Your task to perform on an android device: Open calendar and show me the second week of next month Image 0: 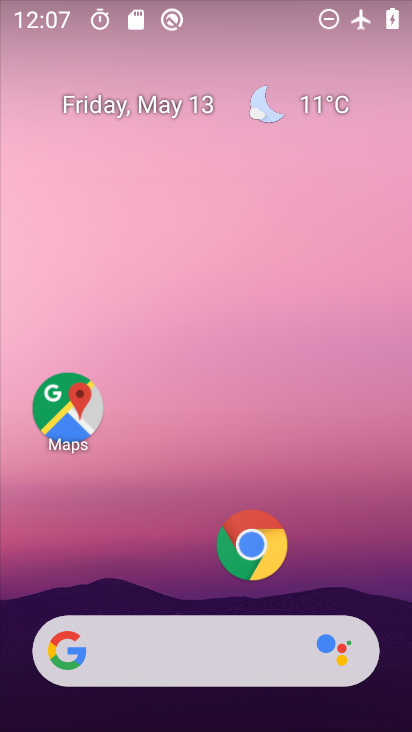
Step 0: drag from (189, 583) to (153, 28)
Your task to perform on an android device: Open calendar and show me the second week of next month Image 1: 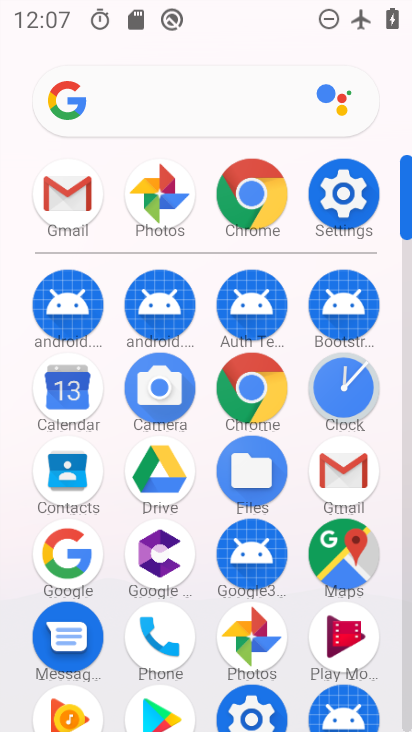
Step 1: click (65, 396)
Your task to perform on an android device: Open calendar and show me the second week of next month Image 2: 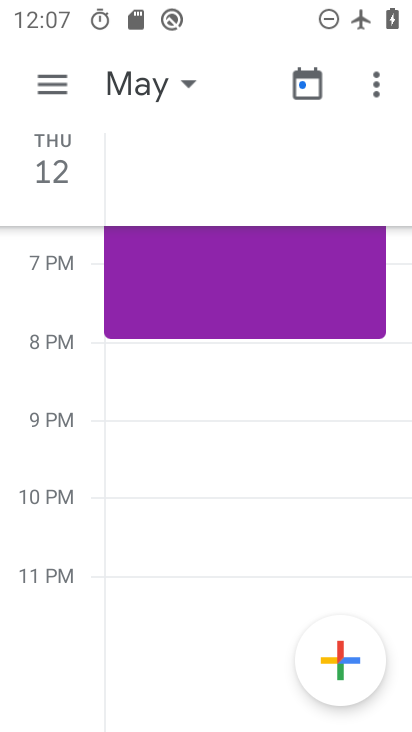
Step 2: click (180, 75)
Your task to perform on an android device: Open calendar and show me the second week of next month Image 3: 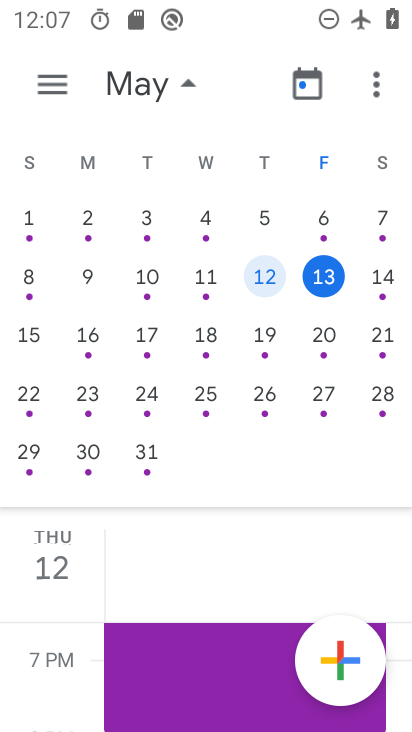
Step 3: drag from (65, 289) to (0, 289)
Your task to perform on an android device: Open calendar and show me the second week of next month Image 4: 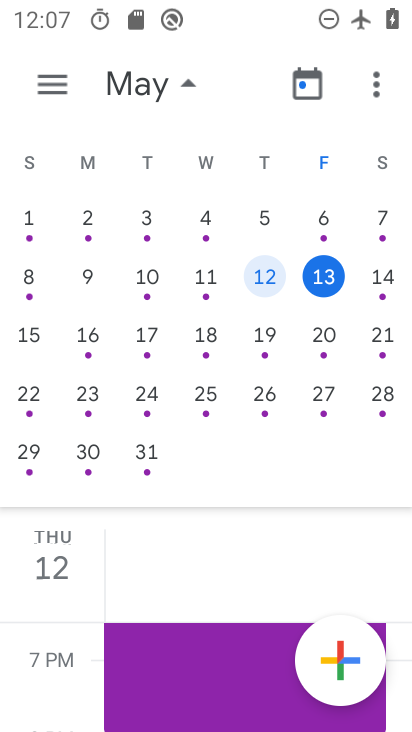
Step 4: drag from (376, 321) to (40, 318)
Your task to perform on an android device: Open calendar and show me the second week of next month Image 5: 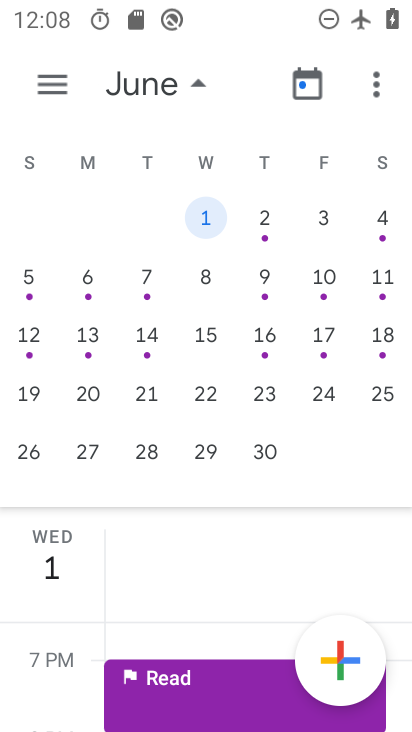
Step 5: click (28, 283)
Your task to perform on an android device: Open calendar and show me the second week of next month Image 6: 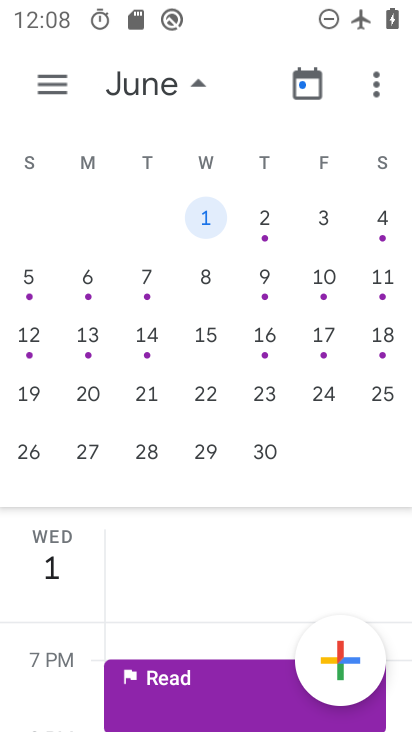
Step 6: click (28, 286)
Your task to perform on an android device: Open calendar and show me the second week of next month Image 7: 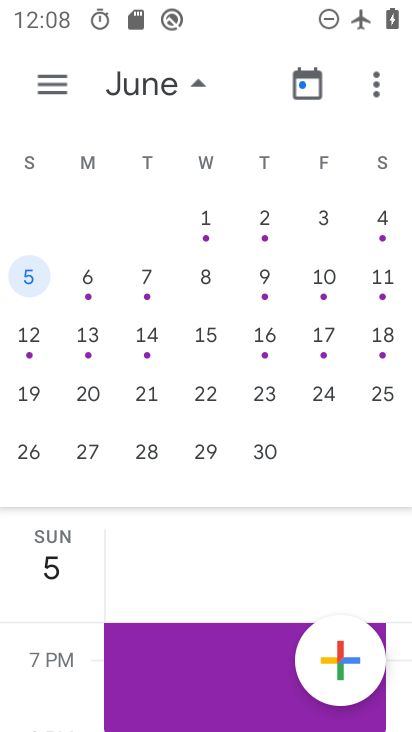
Step 7: click (190, 77)
Your task to perform on an android device: Open calendar and show me the second week of next month Image 8: 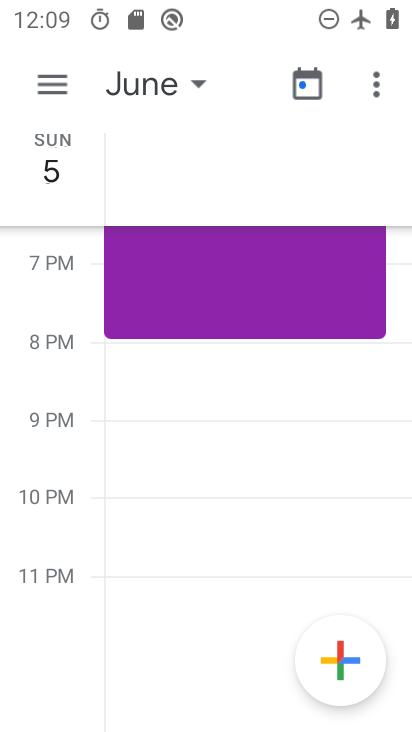
Step 8: drag from (82, 294) to (110, 731)
Your task to perform on an android device: Open calendar and show me the second week of next month Image 9: 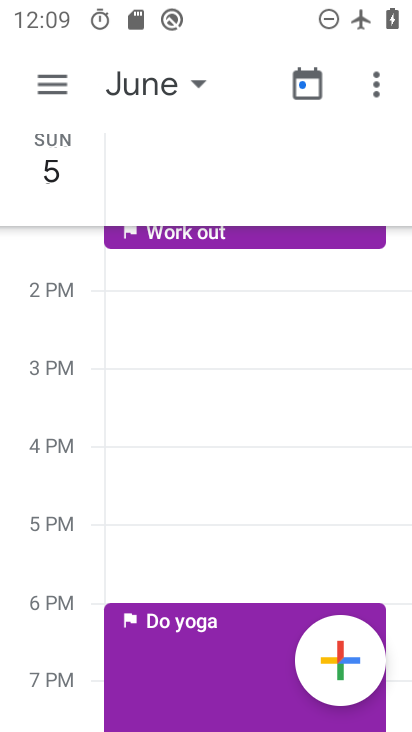
Step 9: drag from (80, 310) to (83, 726)
Your task to perform on an android device: Open calendar and show me the second week of next month Image 10: 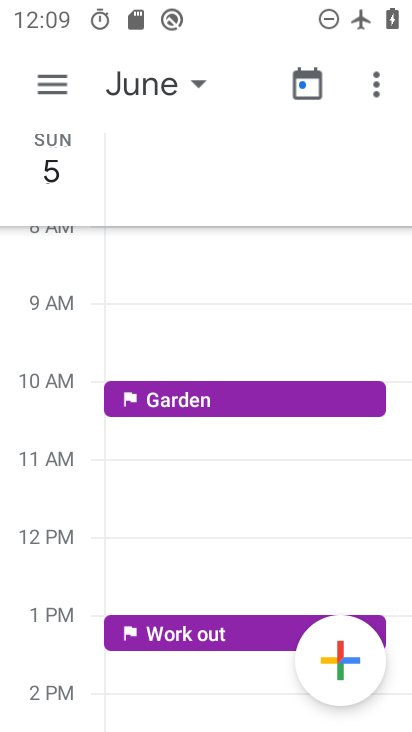
Step 10: drag from (77, 290) to (76, 587)
Your task to perform on an android device: Open calendar and show me the second week of next month Image 11: 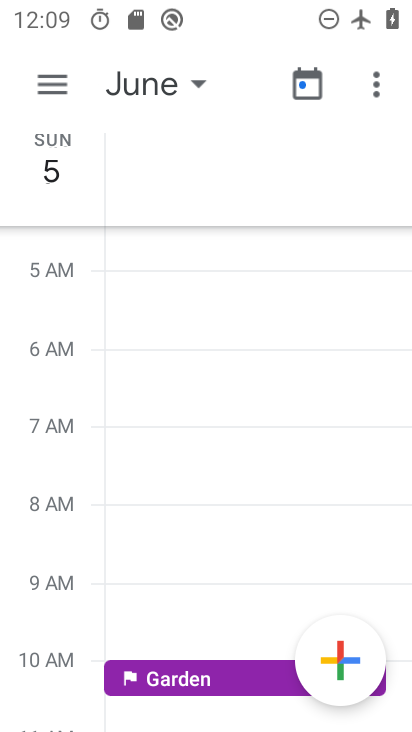
Step 11: click (63, 172)
Your task to perform on an android device: Open calendar and show me the second week of next month Image 12: 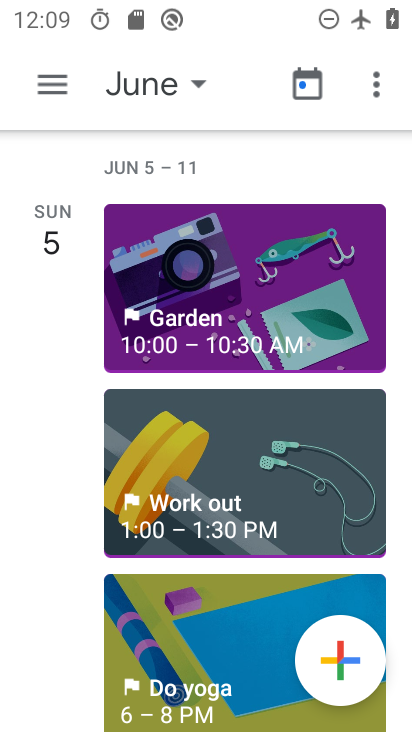
Step 12: task complete